Your task to perform on an android device: Is it going to rain tomorrow? Image 0: 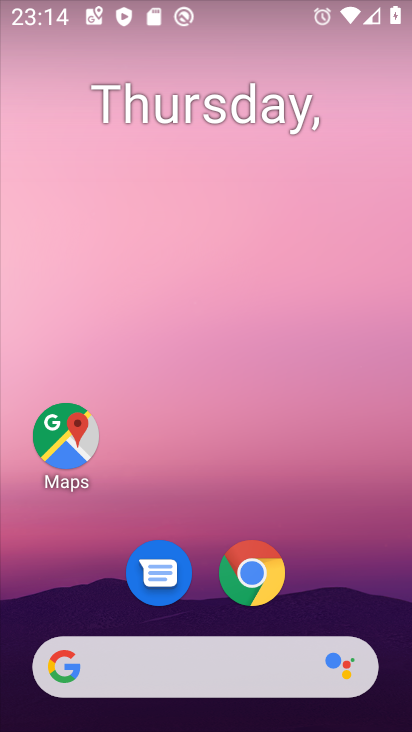
Step 0: drag from (364, 568) to (195, 65)
Your task to perform on an android device: Is it going to rain tomorrow? Image 1: 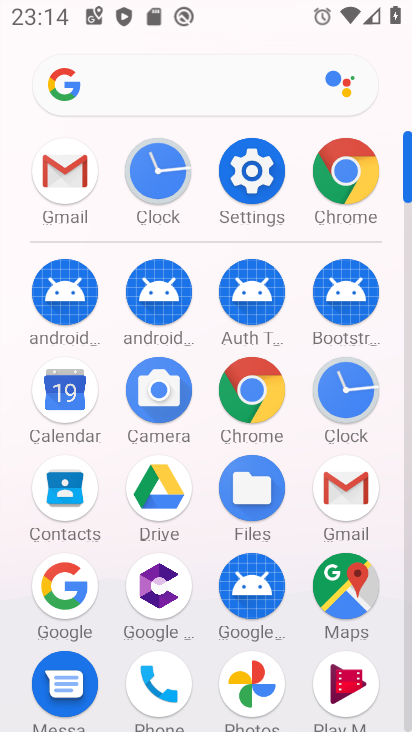
Step 1: click (240, 384)
Your task to perform on an android device: Is it going to rain tomorrow? Image 2: 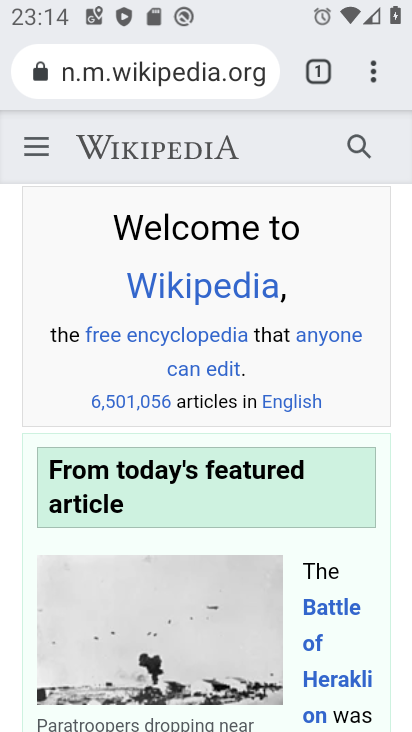
Step 2: click (195, 70)
Your task to perform on an android device: Is it going to rain tomorrow? Image 3: 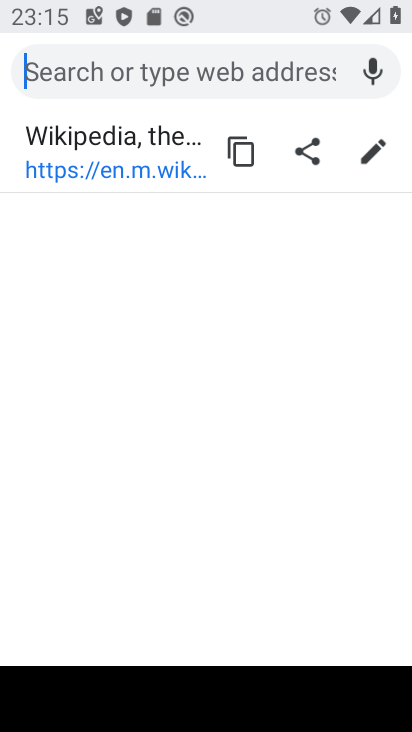
Step 3: type "weather"
Your task to perform on an android device: Is it going to rain tomorrow? Image 4: 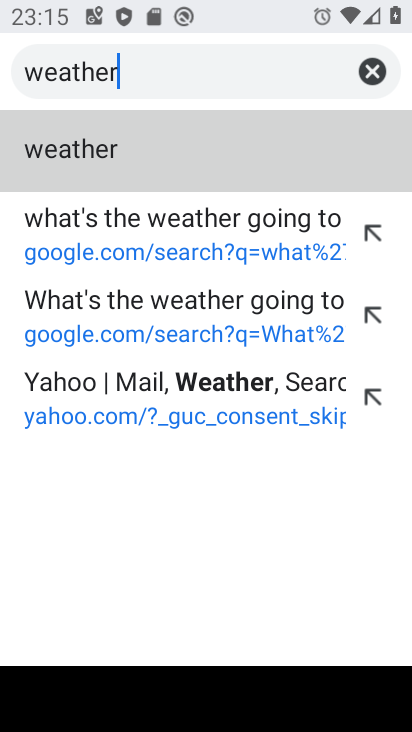
Step 4: click (63, 165)
Your task to perform on an android device: Is it going to rain tomorrow? Image 5: 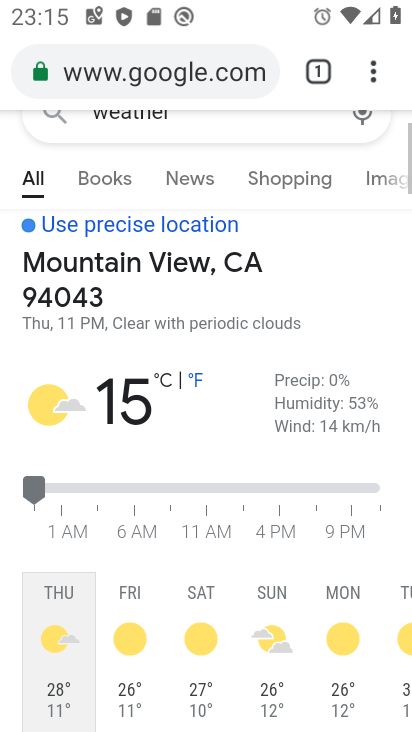
Step 5: drag from (152, 535) to (212, 169)
Your task to perform on an android device: Is it going to rain tomorrow? Image 6: 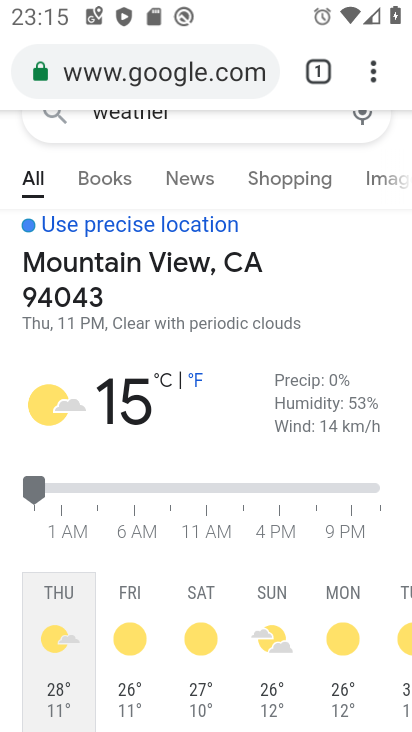
Step 6: click (135, 621)
Your task to perform on an android device: Is it going to rain tomorrow? Image 7: 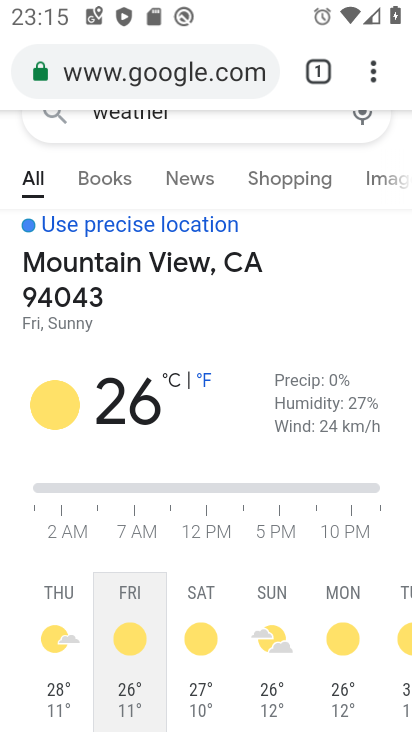
Step 7: task complete